Your task to perform on an android device: toggle airplane mode Image 0: 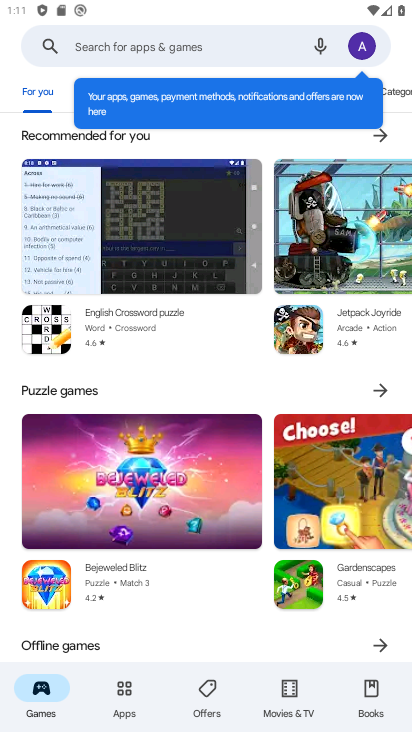
Step 0: press home button
Your task to perform on an android device: toggle airplane mode Image 1: 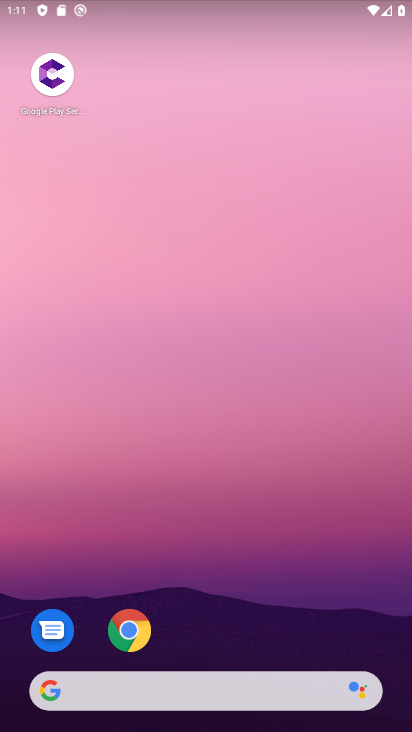
Step 1: press home button
Your task to perform on an android device: toggle airplane mode Image 2: 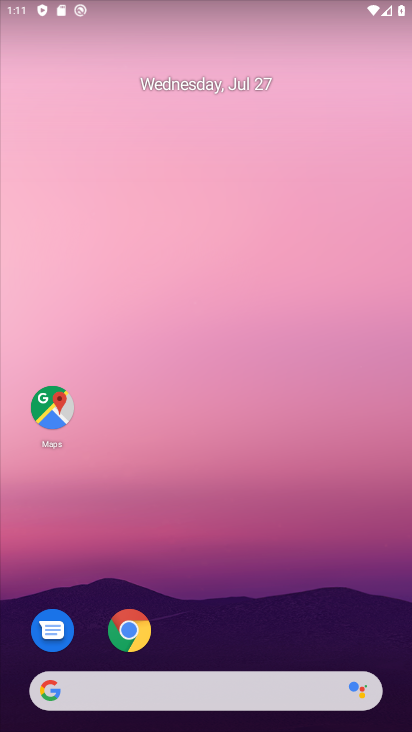
Step 2: drag from (302, 94) to (304, 332)
Your task to perform on an android device: toggle airplane mode Image 3: 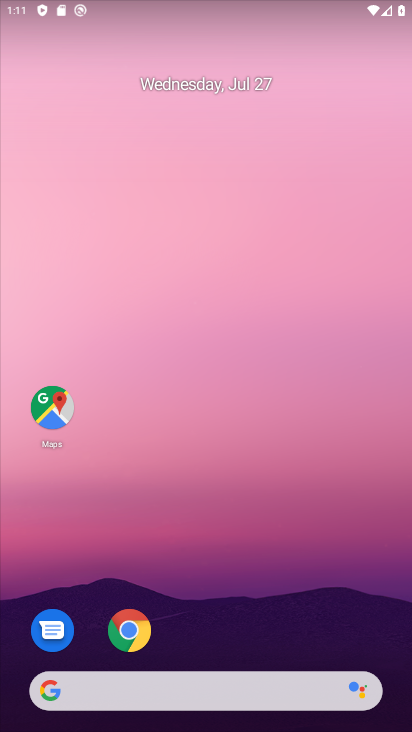
Step 3: drag from (293, 4) to (214, 692)
Your task to perform on an android device: toggle airplane mode Image 4: 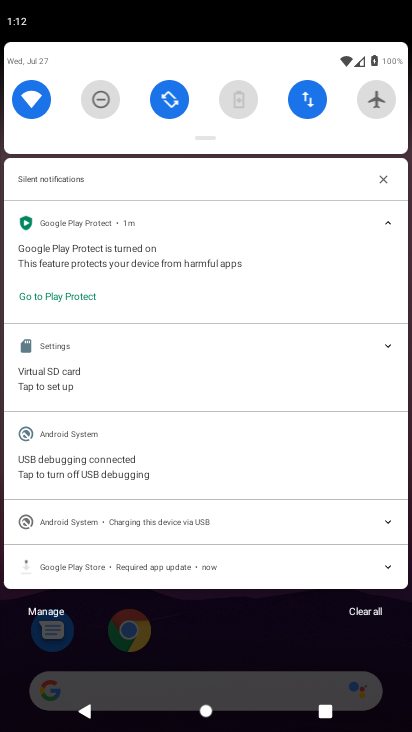
Step 4: click (371, 98)
Your task to perform on an android device: toggle airplane mode Image 5: 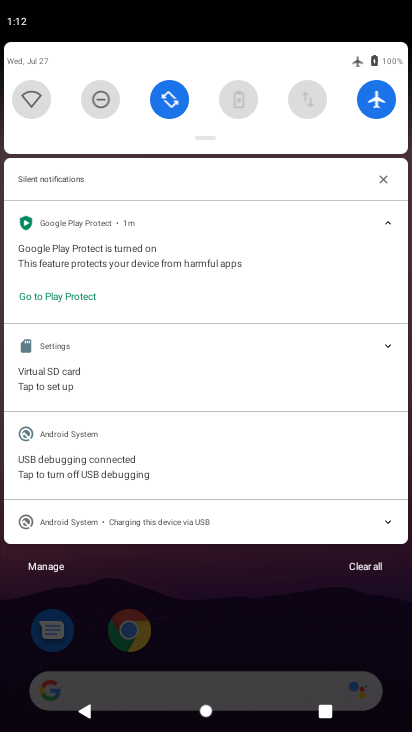
Step 5: click (371, 98)
Your task to perform on an android device: toggle airplane mode Image 6: 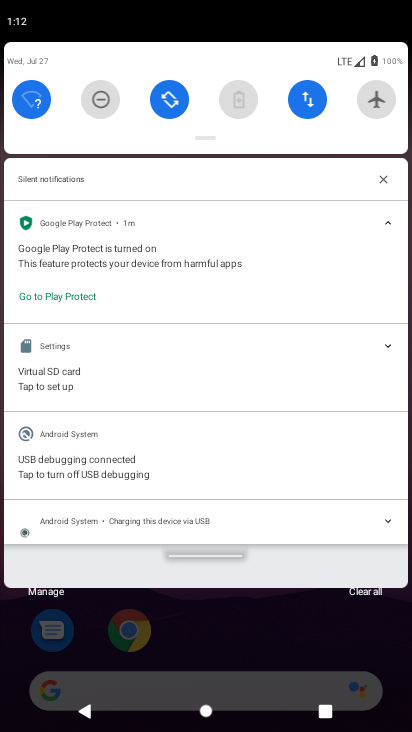
Step 6: task complete